Your task to perform on an android device: see sites visited before in the chrome app Image 0: 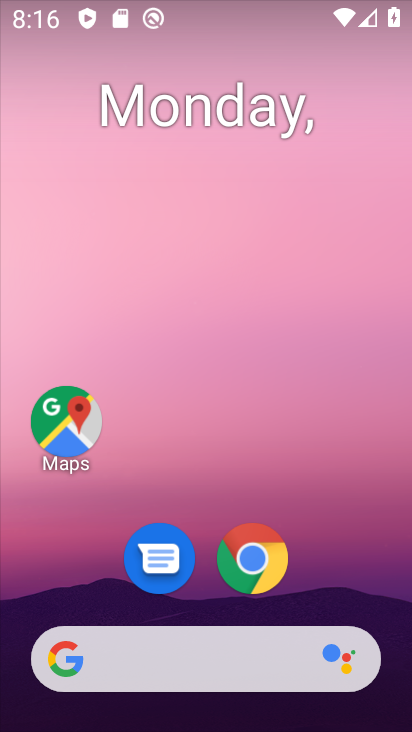
Step 0: click (256, 561)
Your task to perform on an android device: see sites visited before in the chrome app Image 1: 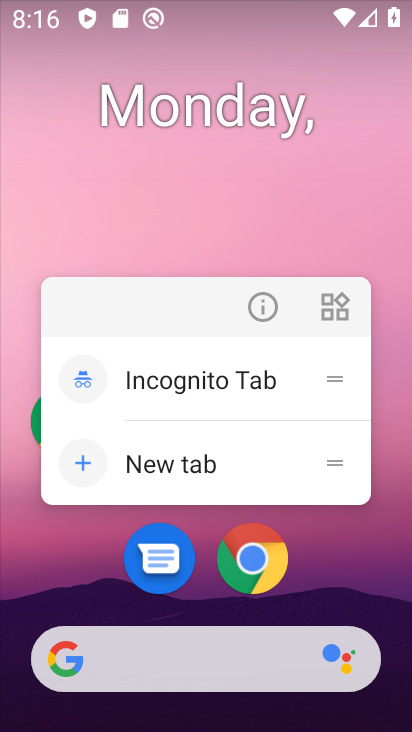
Step 1: click (256, 561)
Your task to perform on an android device: see sites visited before in the chrome app Image 2: 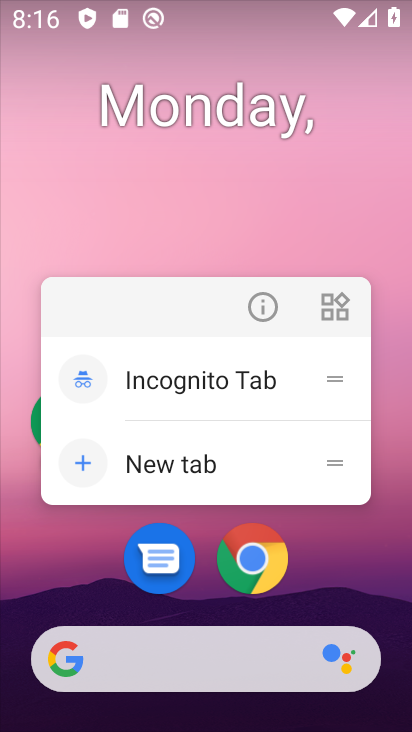
Step 2: click (250, 565)
Your task to perform on an android device: see sites visited before in the chrome app Image 3: 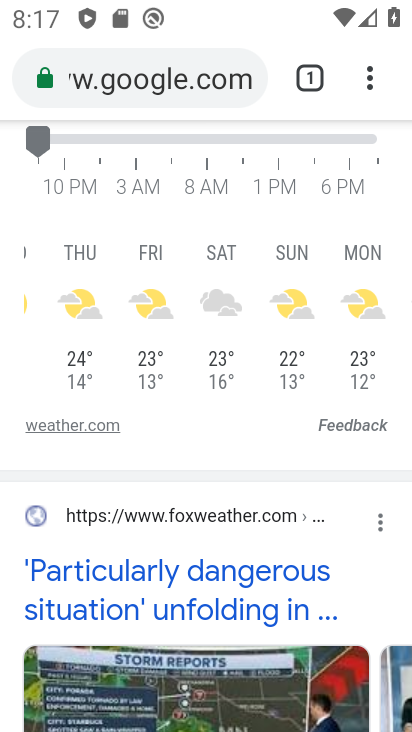
Step 3: task complete